Your task to perform on an android device: check android version Image 0: 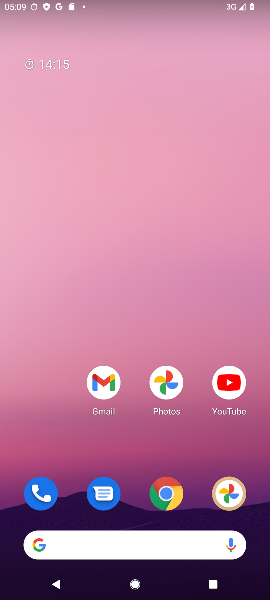
Step 0: press home button
Your task to perform on an android device: check android version Image 1: 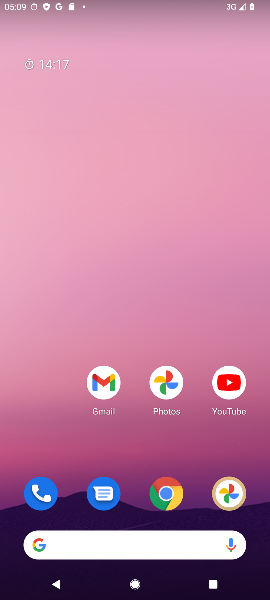
Step 1: drag from (60, 446) to (96, 153)
Your task to perform on an android device: check android version Image 2: 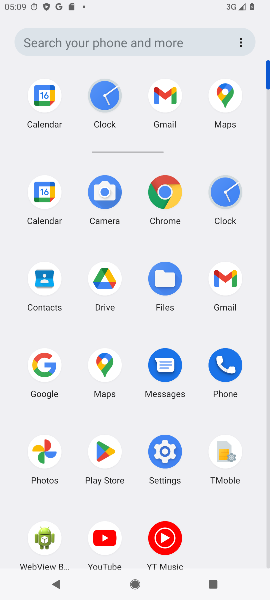
Step 2: click (164, 457)
Your task to perform on an android device: check android version Image 3: 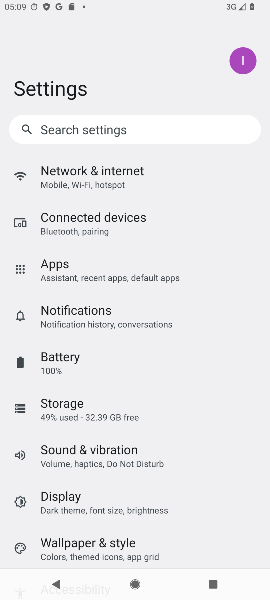
Step 3: drag from (223, 491) to (226, 401)
Your task to perform on an android device: check android version Image 4: 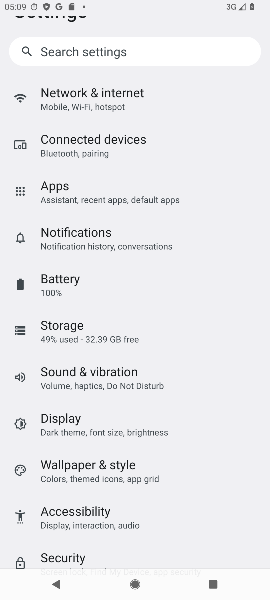
Step 4: drag from (213, 514) to (231, 421)
Your task to perform on an android device: check android version Image 5: 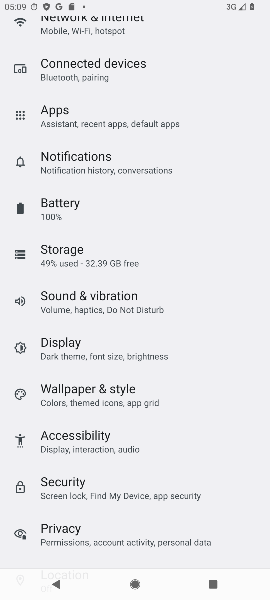
Step 5: drag from (229, 515) to (218, 345)
Your task to perform on an android device: check android version Image 6: 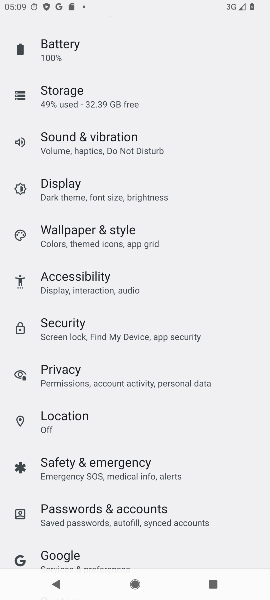
Step 6: drag from (224, 496) to (228, 382)
Your task to perform on an android device: check android version Image 7: 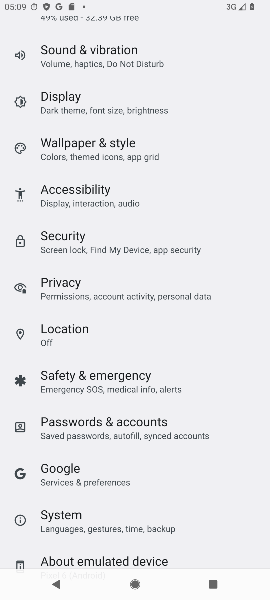
Step 7: drag from (237, 517) to (237, 378)
Your task to perform on an android device: check android version Image 8: 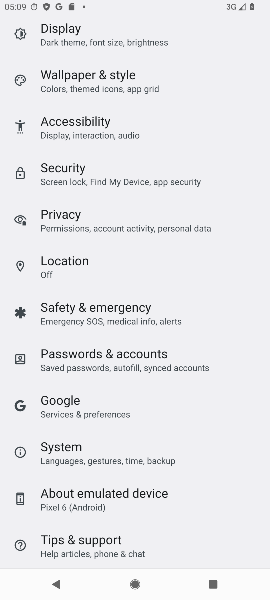
Step 8: drag from (222, 493) to (224, 379)
Your task to perform on an android device: check android version Image 9: 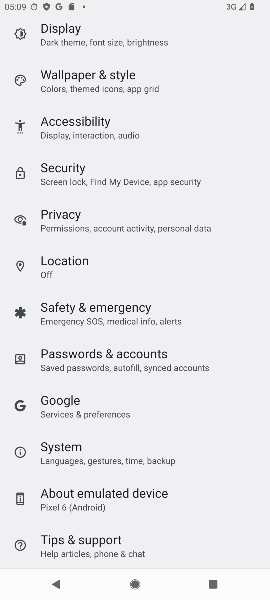
Step 9: click (137, 448)
Your task to perform on an android device: check android version Image 10: 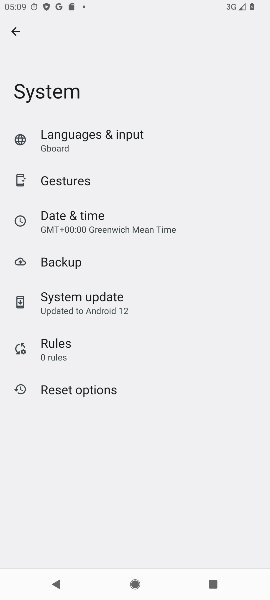
Step 10: click (111, 307)
Your task to perform on an android device: check android version Image 11: 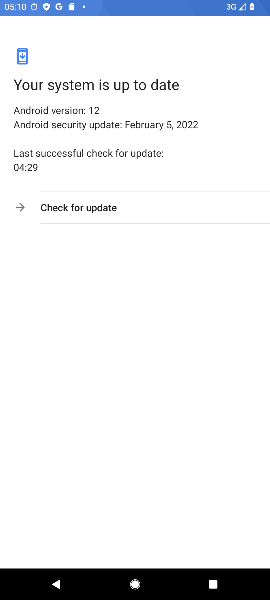
Step 11: task complete